Your task to perform on an android device: Open Google Maps Image 0: 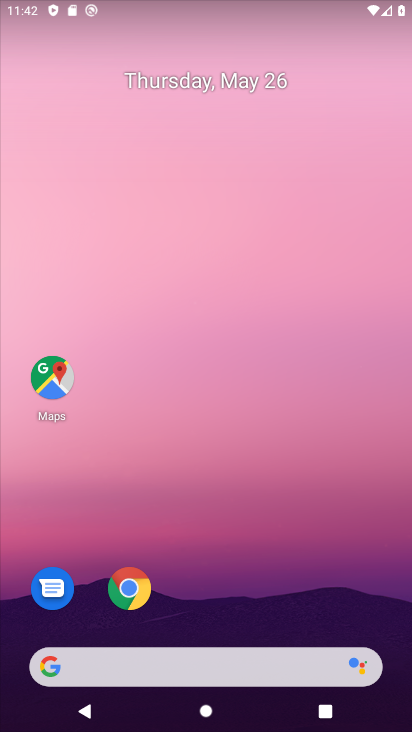
Step 0: click (47, 368)
Your task to perform on an android device: Open Google Maps Image 1: 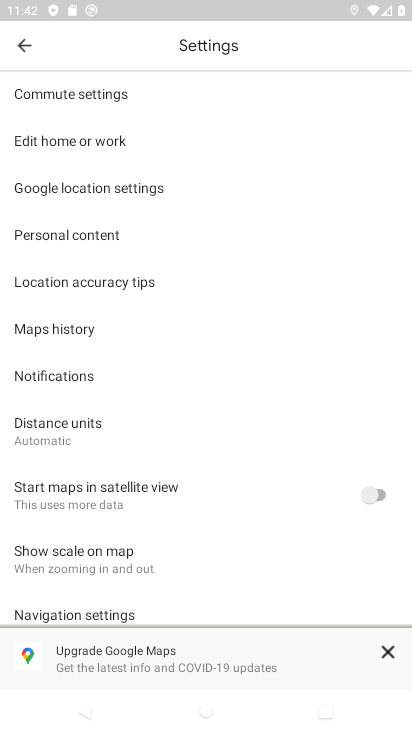
Step 1: task complete